Your task to perform on an android device: Go to Google Image 0: 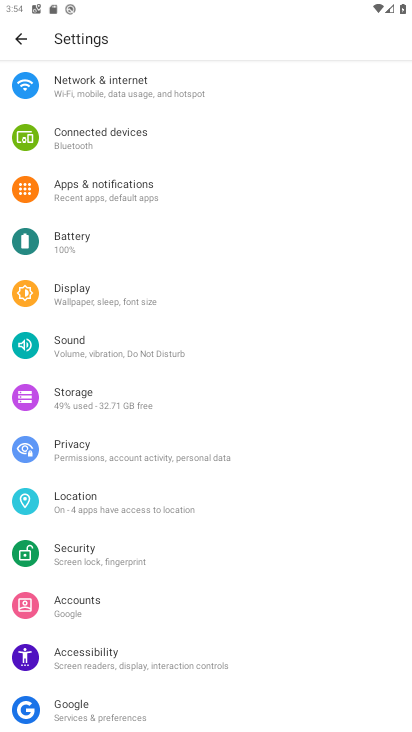
Step 0: press home button
Your task to perform on an android device: Go to Google Image 1: 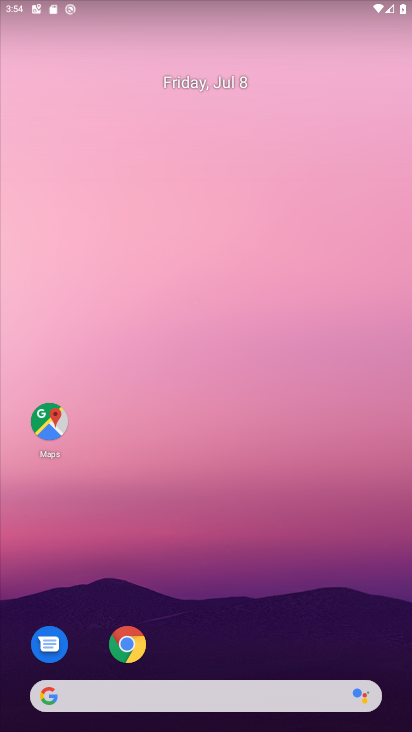
Step 1: click (129, 645)
Your task to perform on an android device: Go to Google Image 2: 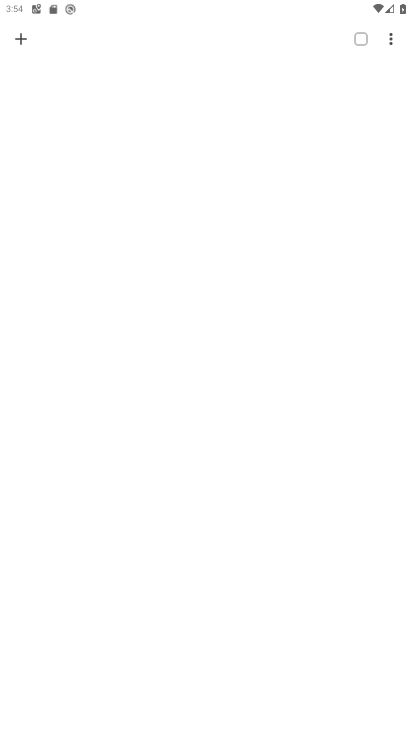
Step 2: click (15, 35)
Your task to perform on an android device: Go to Google Image 3: 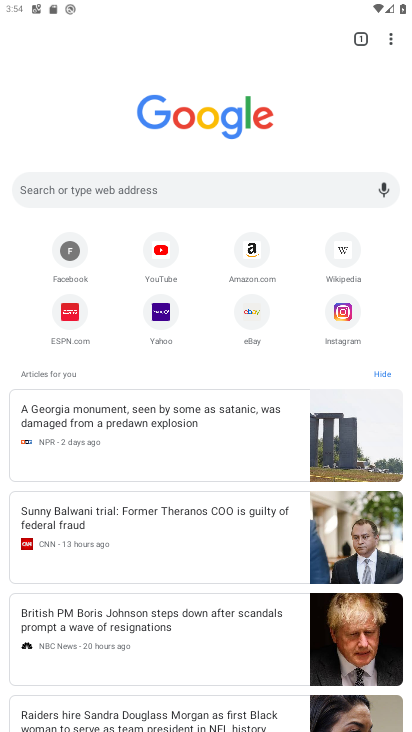
Step 3: task complete